Your task to perform on an android device: toggle javascript in the chrome app Image 0: 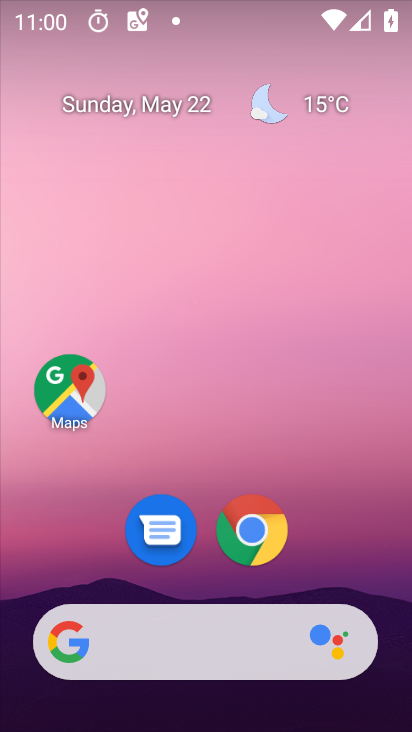
Step 0: click (246, 522)
Your task to perform on an android device: toggle javascript in the chrome app Image 1: 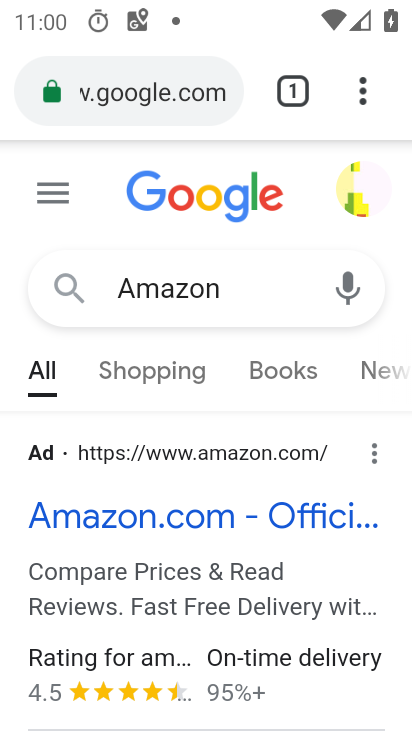
Step 1: click (365, 86)
Your task to perform on an android device: toggle javascript in the chrome app Image 2: 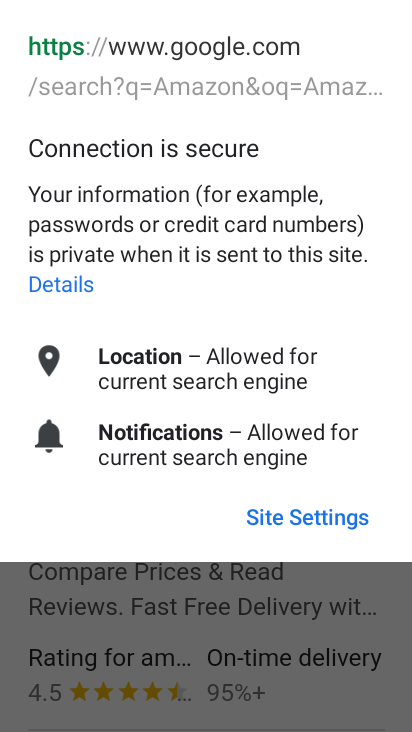
Step 2: press back button
Your task to perform on an android device: toggle javascript in the chrome app Image 3: 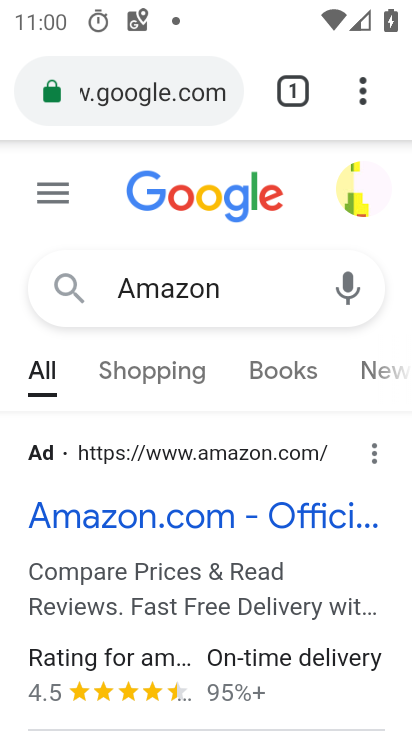
Step 3: click (364, 91)
Your task to perform on an android device: toggle javascript in the chrome app Image 4: 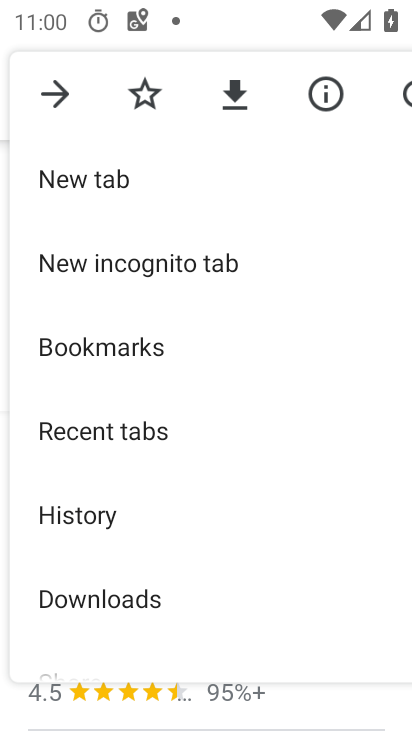
Step 4: drag from (262, 605) to (269, 277)
Your task to perform on an android device: toggle javascript in the chrome app Image 5: 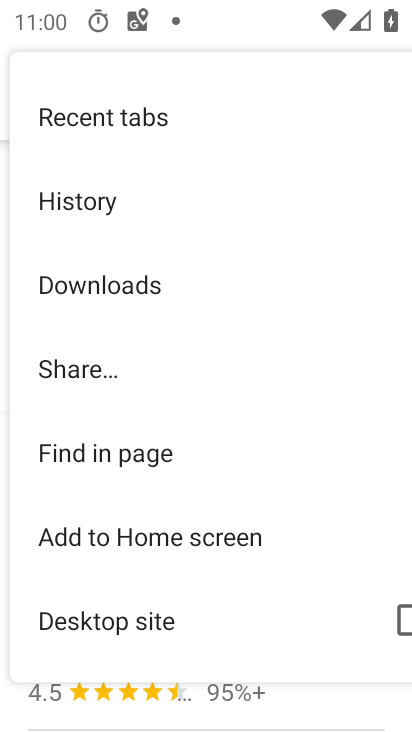
Step 5: drag from (293, 619) to (297, 364)
Your task to perform on an android device: toggle javascript in the chrome app Image 6: 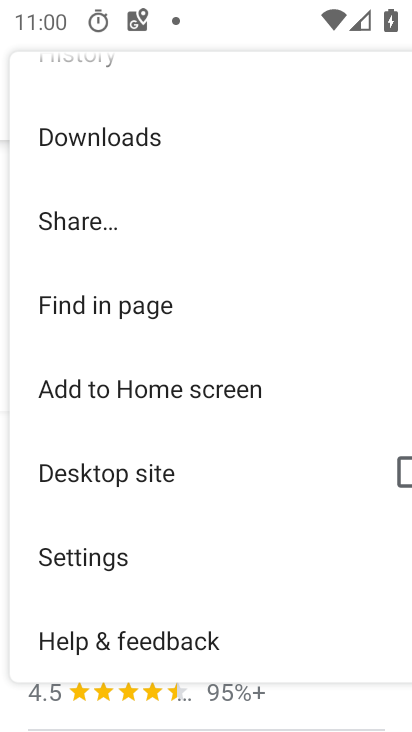
Step 6: click (75, 560)
Your task to perform on an android device: toggle javascript in the chrome app Image 7: 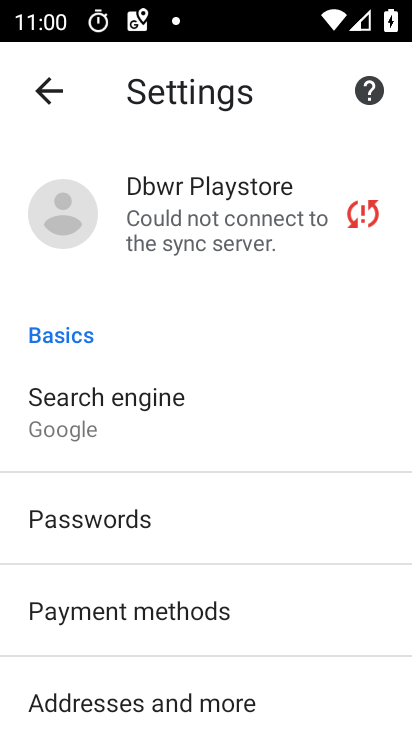
Step 7: drag from (328, 709) to (333, 248)
Your task to perform on an android device: toggle javascript in the chrome app Image 8: 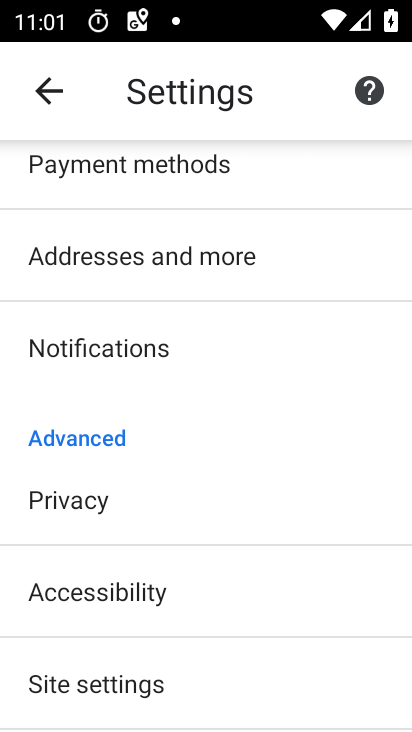
Step 8: drag from (238, 615) to (278, 324)
Your task to perform on an android device: toggle javascript in the chrome app Image 9: 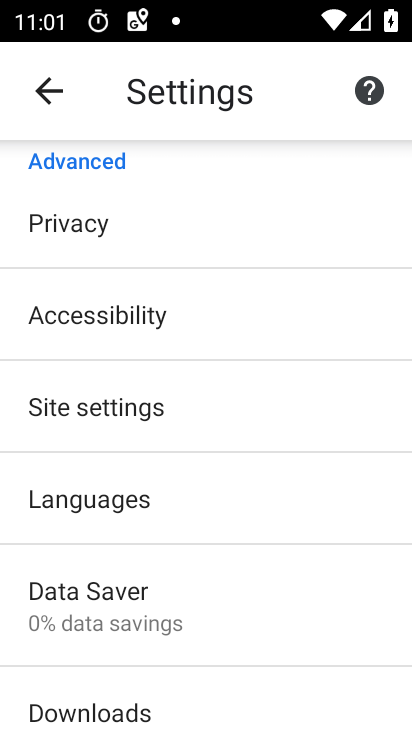
Step 9: click (89, 402)
Your task to perform on an android device: toggle javascript in the chrome app Image 10: 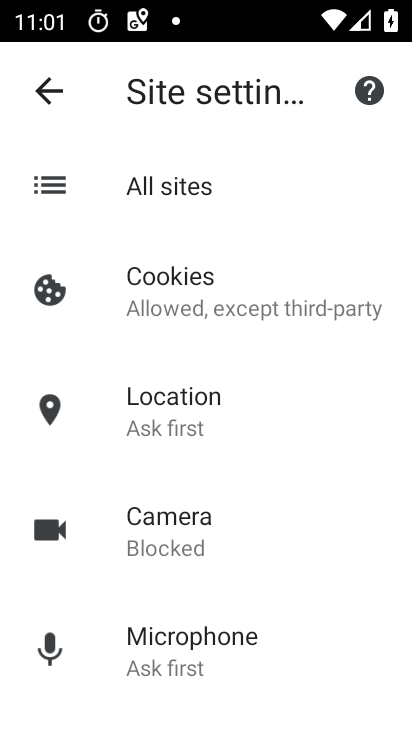
Step 10: drag from (311, 663) to (323, 326)
Your task to perform on an android device: toggle javascript in the chrome app Image 11: 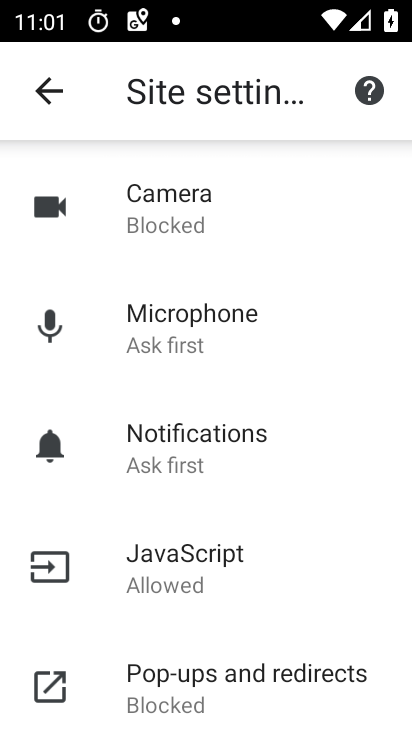
Step 11: click (193, 562)
Your task to perform on an android device: toggle javascript in the chrome app Image 12: 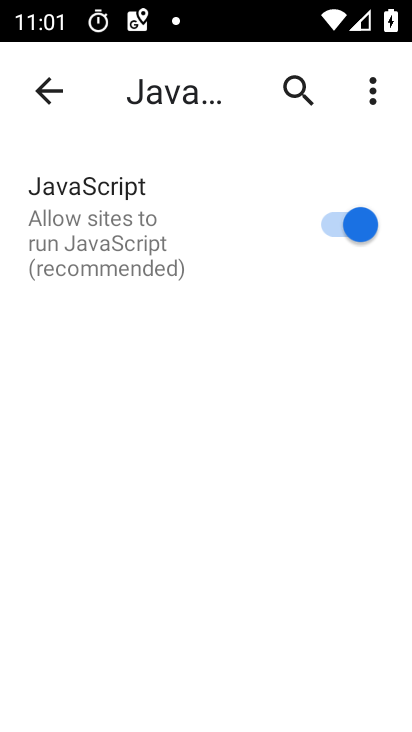
Step 12: click (322, 217)
Your task to perform on an android device: toggle javascript in the chrome app Image 13: 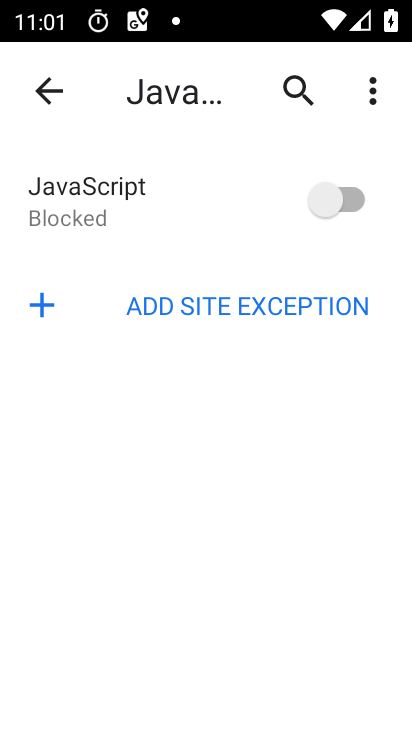
Step 13: task complete